Your task to perform on an android device: Open Amazon Image 0: 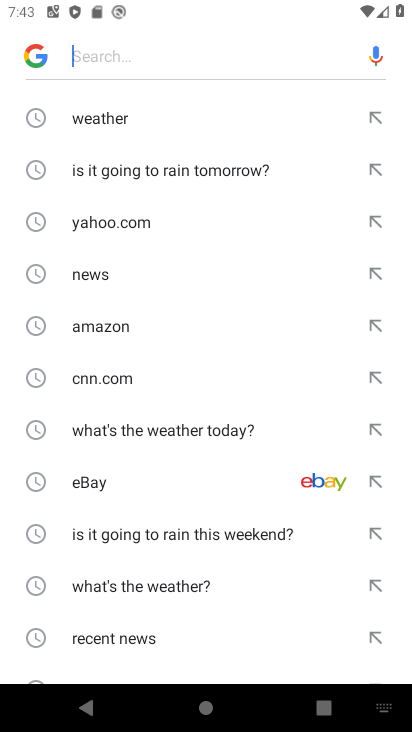
Step 0: press home button
Your task to perform on an android device: Open Amazon Image 1: 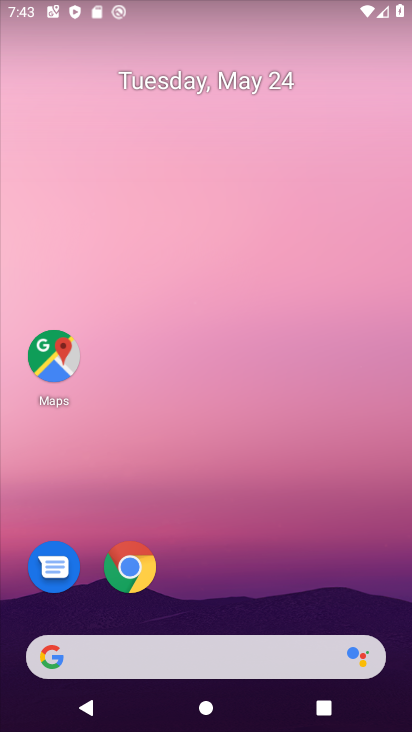
Step 1: click (135, 568)
Your task to perform on an android device: Open Amazon Image 2: 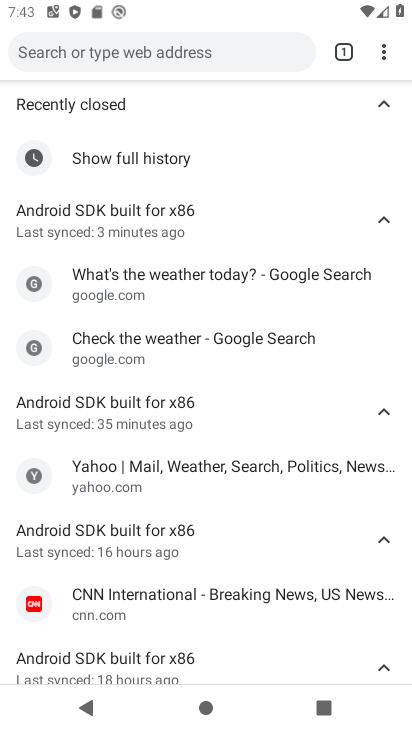
Step 2: click (351, 53)
Your task to perform on an android device: Open Amazon Image 3: 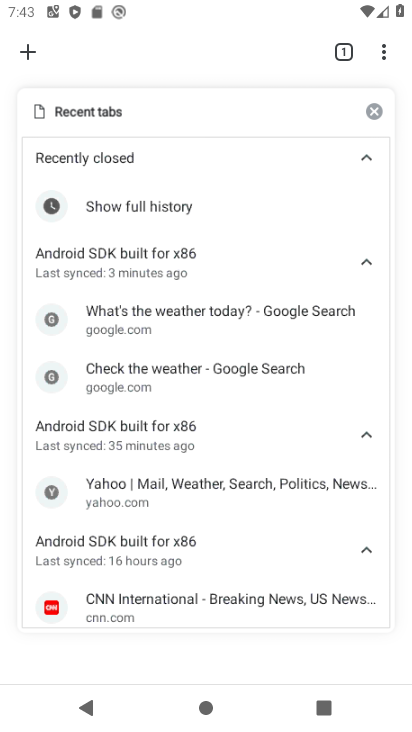
Step 3: click (30, 51)
Your task to perform on an android device: Open Amazon Image 4: 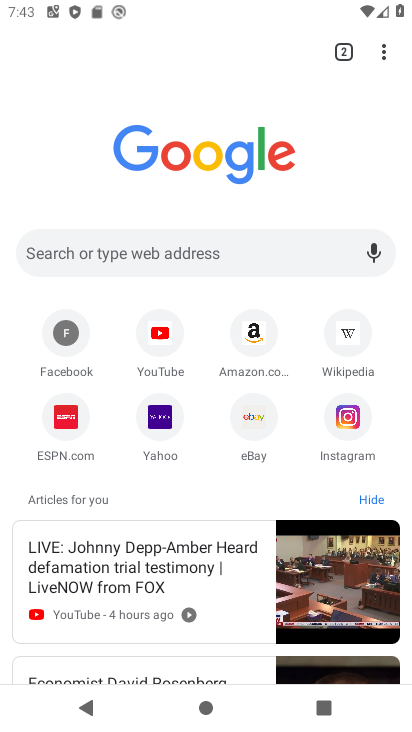
Step 4: click (244, 337)
Your task to perform on an android device: Open Amazon Image 5: 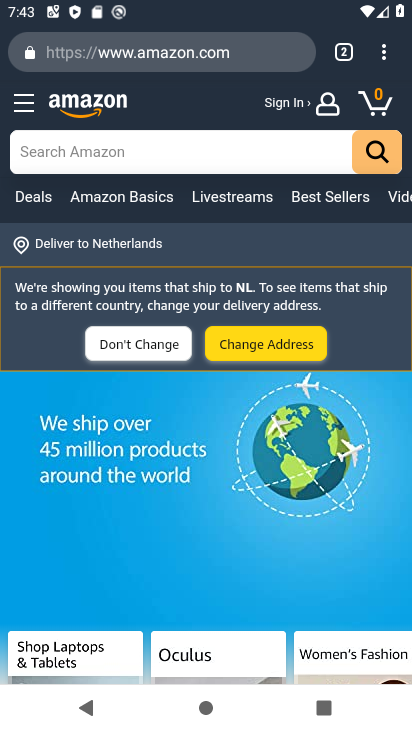
Step 5: task complete